Your task to perform on an android device: delete the emails in spam in the gmail app Image 0: 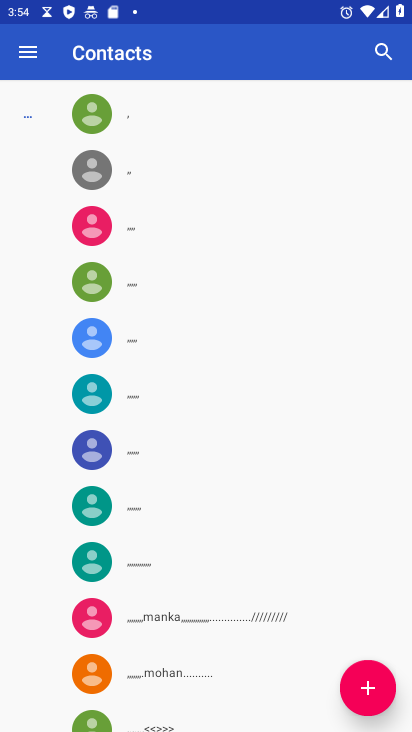
Step 0: press back button
Your task to perform on an android device: delete the emails in spam in the gmail app Image 1: 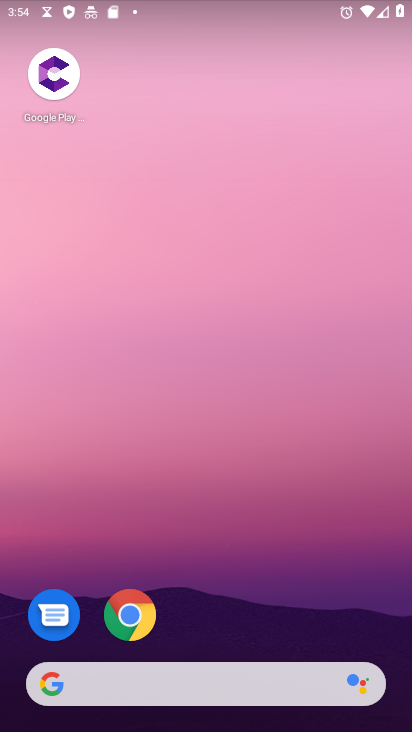
Step 1: drag from (266, 608) to (111, 69)
Your task to perform on an android device: delete the emails in spam in the gmail app Image 2: 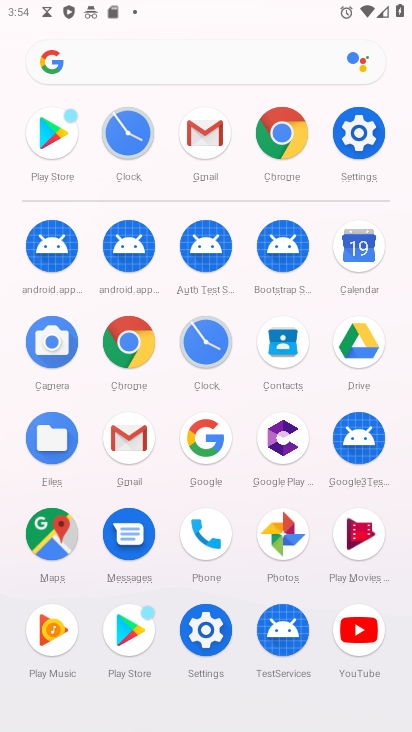
Step 2: click (123, 446)
Your task to perform on an android device: delete the emails in spam in the gmail app Image 3: 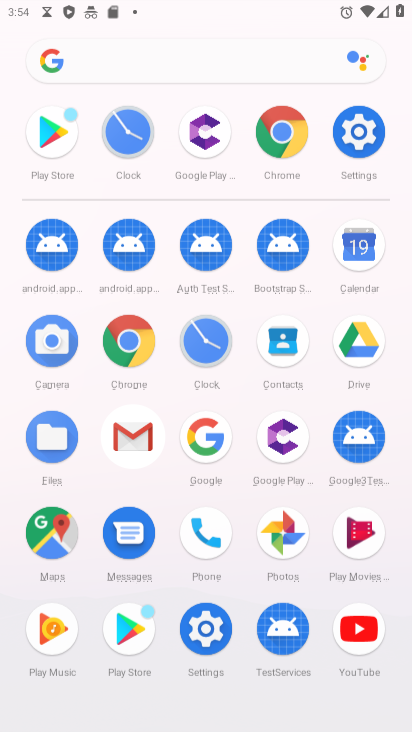
Step 3: click (124, 445)
Your task to perform on an android device: delete the emails in spam in the gmail app Image 4: 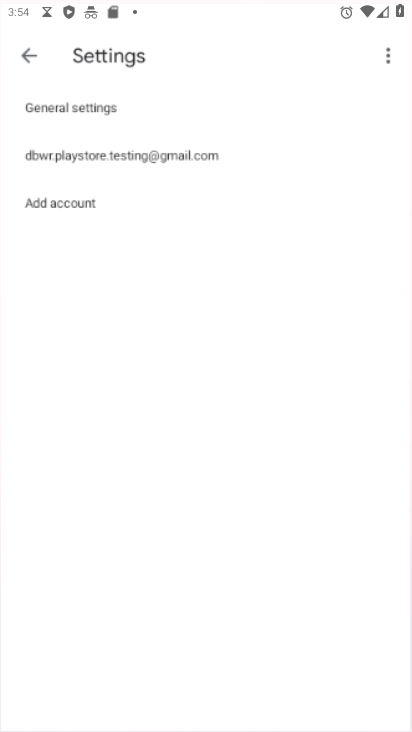
Step 4: click (124, 445)
Your task to perform on an android device: delete the emails in spam in the gmail app Image 5: 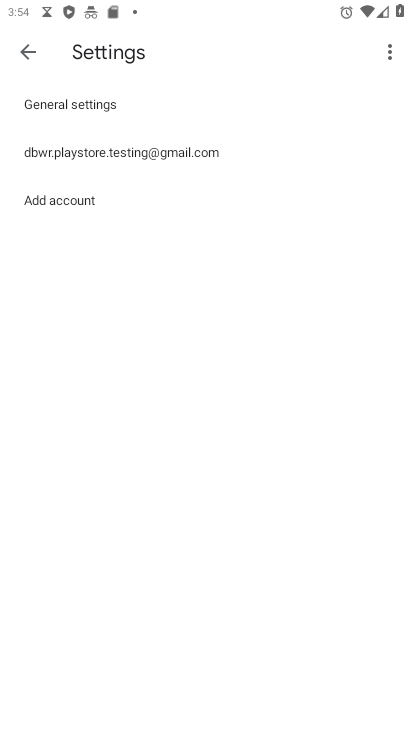
Step 5: click (22, 51)
Your task to perform on an android device: delete the emails in spam in the gmail app Image 6: 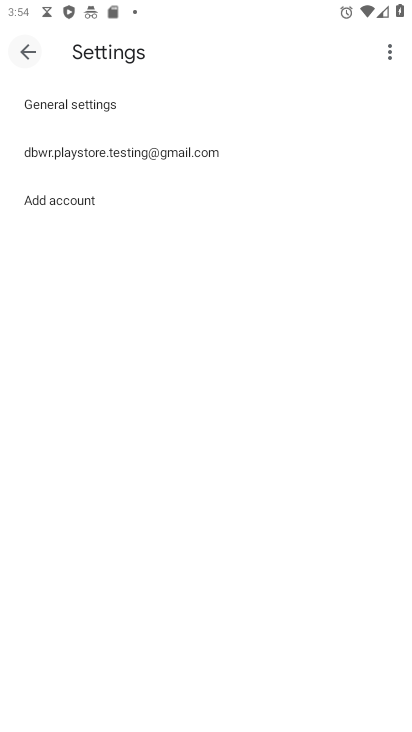
Step 6: click (23, 51)
Your task to perform on an android device: delete the emails in spam in the gmail app Image 7: 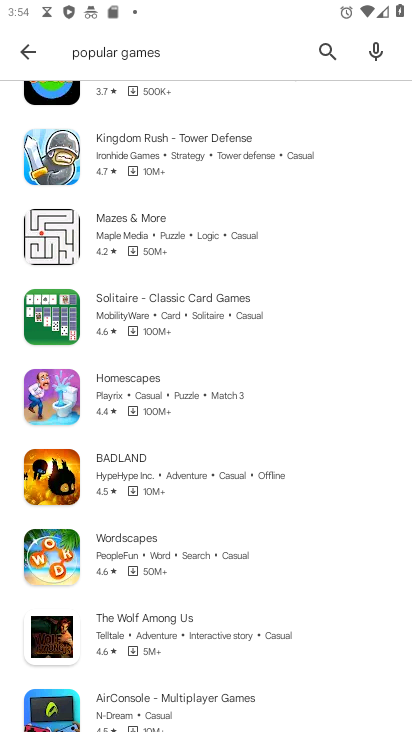
Step 7: press back button
Your task to perform on an android device: delete the emails in spam in the gmail app Image 8: 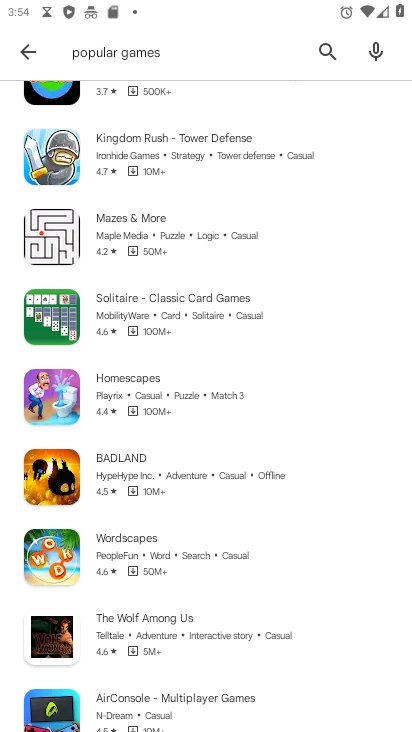
Step 8: press back button
Your task to perform on an android device: delete the emails in spam in the gmail app Image 9: 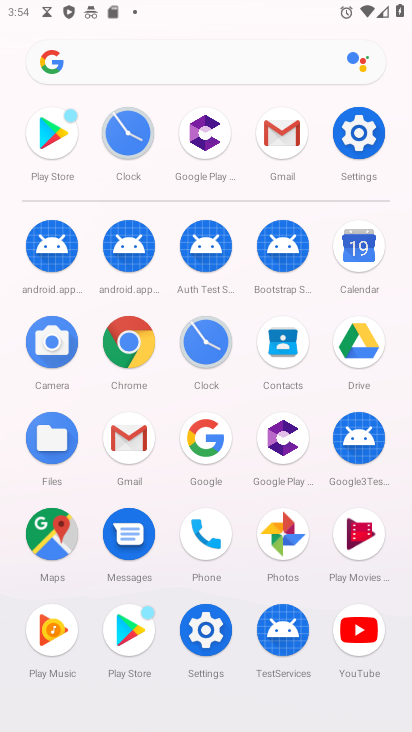
Step 9: click (114, 456)
Your task to perform on an android device: delete the emails in spam in the gmail app Image 10: 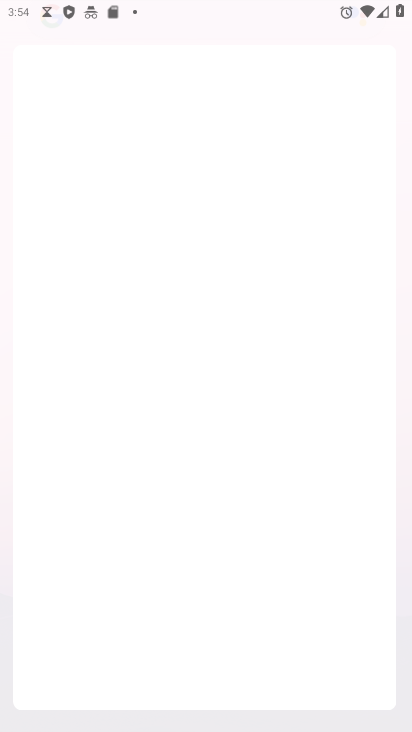
Step 10: click (124, 453)
Your task to perform on an android device: delete the emails in spam in the gmail app Image 11: 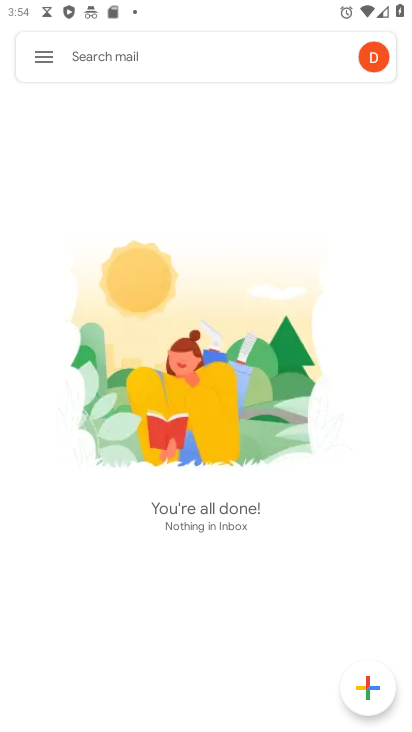
Step 11: click (41, 56)
Your task to perform on an android device: delete the emails in spam in the gmail app Image 12: 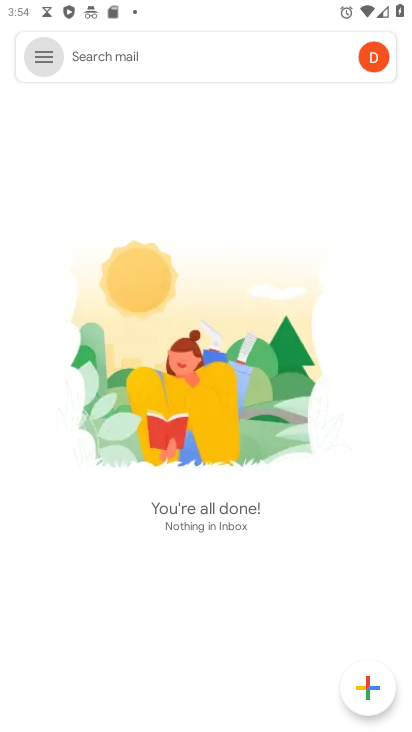
Step 12: click (40, 55)
Your task to perform on an android device: delete the emails in spam in the gmail app Image 13: 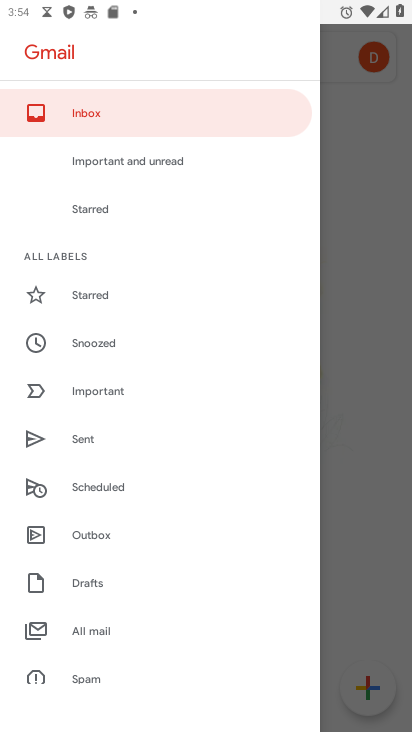
Step 13: click (89, 678)
Your task to perform on an android device: delete the emails in spam in the gmail app Image 14: 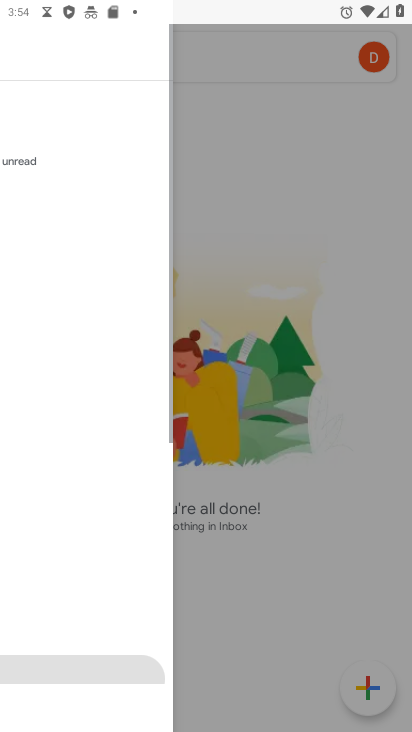
Step 14: click (88, 678)
Your task to perform on an android device: delete the emails in spam in the gmail app Image 15: 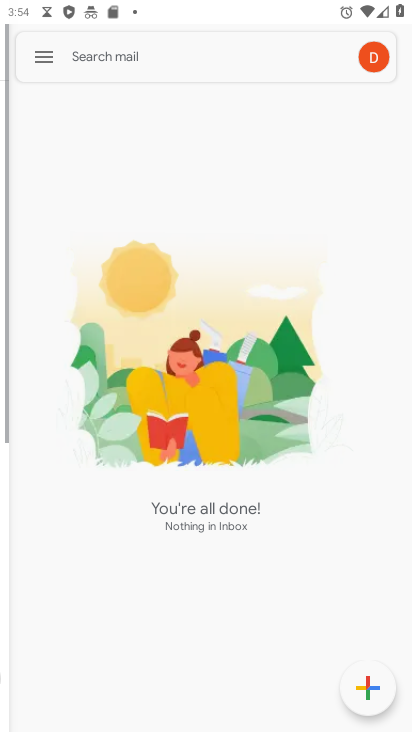
Step 15: click (88, 678)
Your task to perform on an android device: delete the emails in spam in the gmail app Image 16: 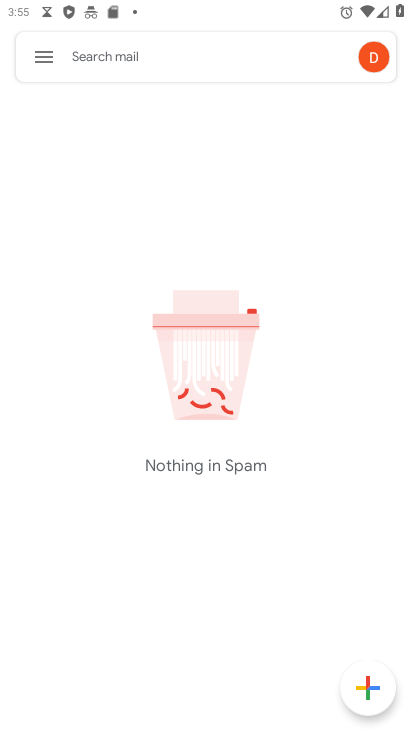
Step 16: task complete